Your task to perform on an android device: Open Google Chrome and click the shortcut for Amazon.com Image 0: 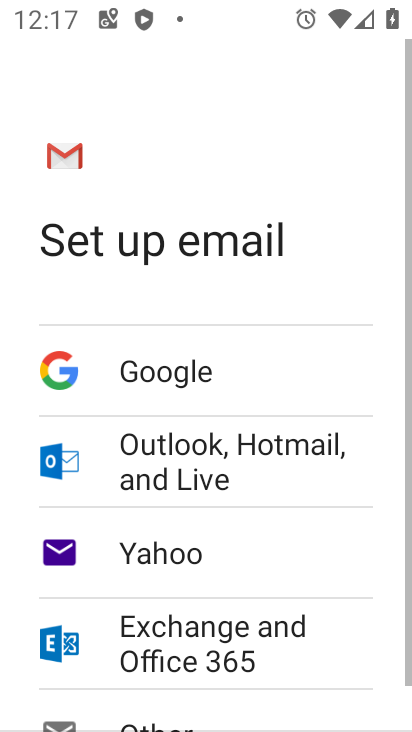
Step 0: press home button
Your task to perform on an android device: Open Google Chrome and click the shortcut for Amazon.com Image 1: 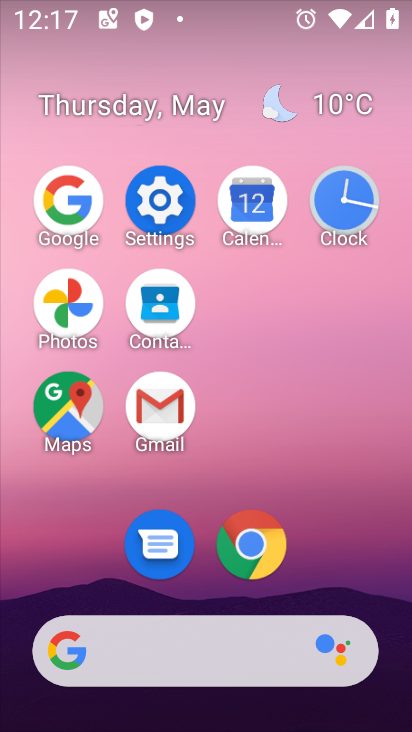
Step 1: click (263, 551)
Your task to perform on an android device: Open Google Chrome and click the shortcut for Amazon.com Image 2: 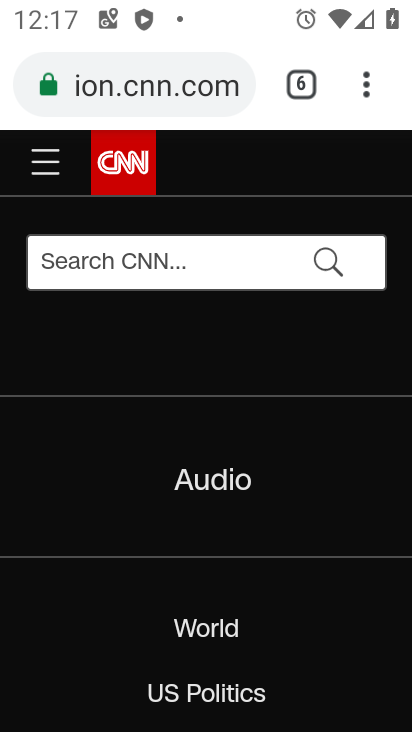
Step 2: click (300, 77)
Your task to perform on an android device: Open Google Chrome and click the shortcut for Amazon.com Image 3: 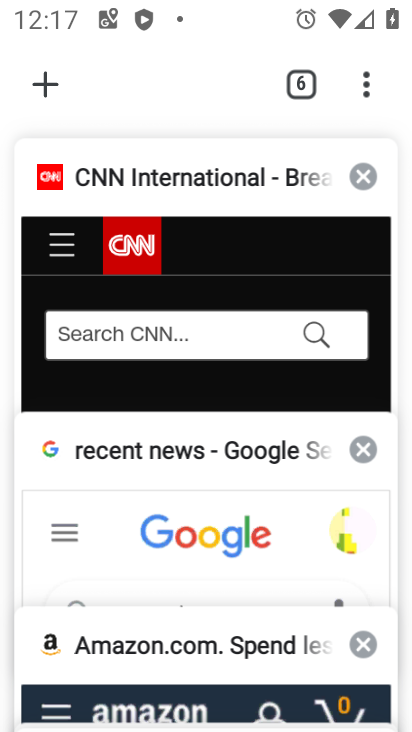
Step 3: click (168, 647)
Your task to perform on an android device: Open Google Chrome and click the shortcut for Amazon.com Image 4: 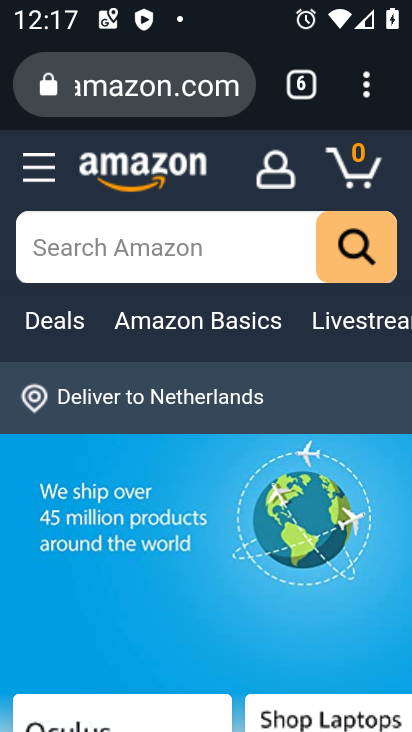
Step 4: click (385, 78)
Your task to perform on an android device: Open Google Chrome and click the shortcut for Amazon.com Image 5: 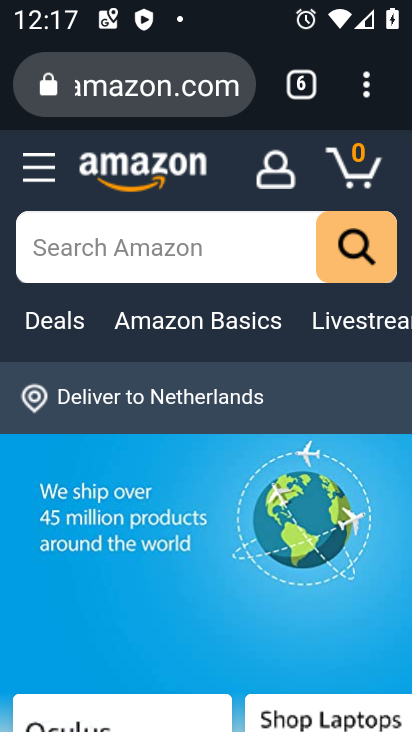
Step 5: click (374, 98)
Your task to perform on an android device: Open Google Chrome and click the shortcut for Amazon.com Image 6: 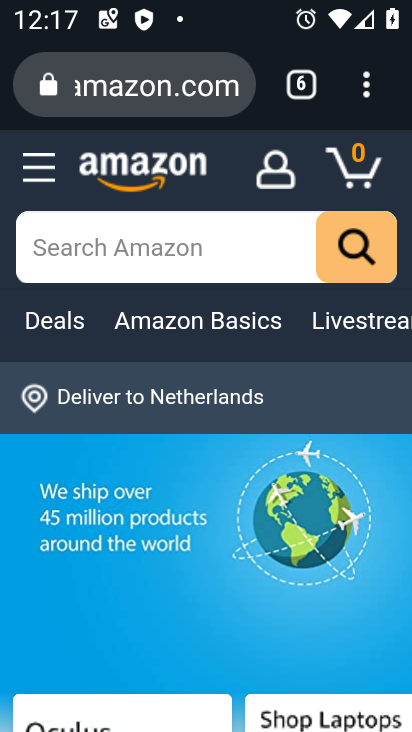
Step 6: click (372, 76)
Your task to perform on an android device: Open Google Chrome and click the shortcut for Amazon.com Image 7: 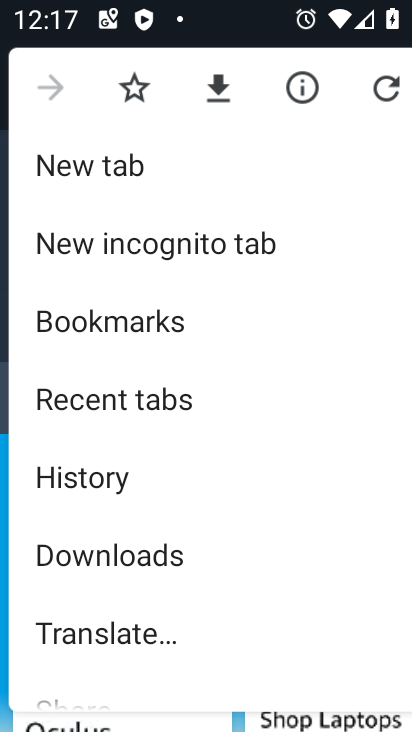
Step 7: drag from (245, 597) to (306, 156)
Your task to perform on an android device: Open Google Chrome and click the shortcut for Amazon.com Image 8: 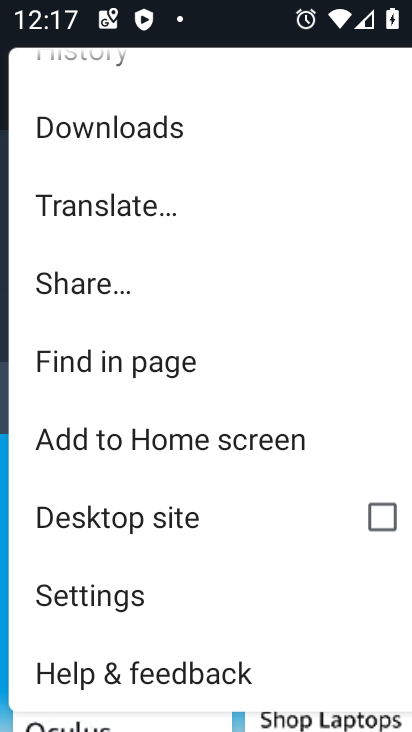
Step 8: click (296, 430)
Your task to perform on an android device: Open Google Chrome and click the shortcut for Amazon.com Image 9: 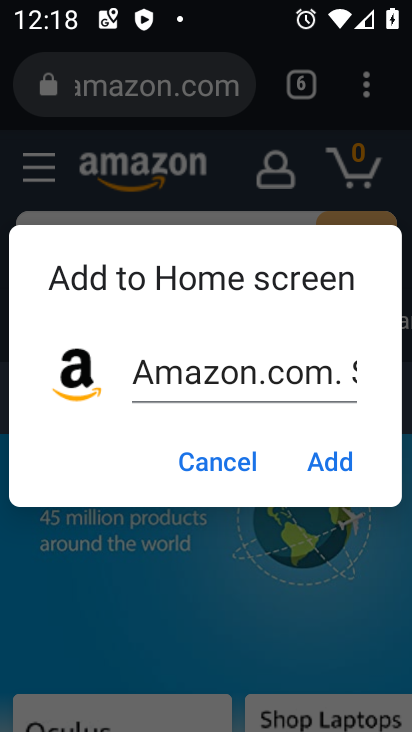
Step 9: click (319, 453)
Your task to perform on an android device: Open Google Chrome and click the shortcut for Amazon.com Image 10: 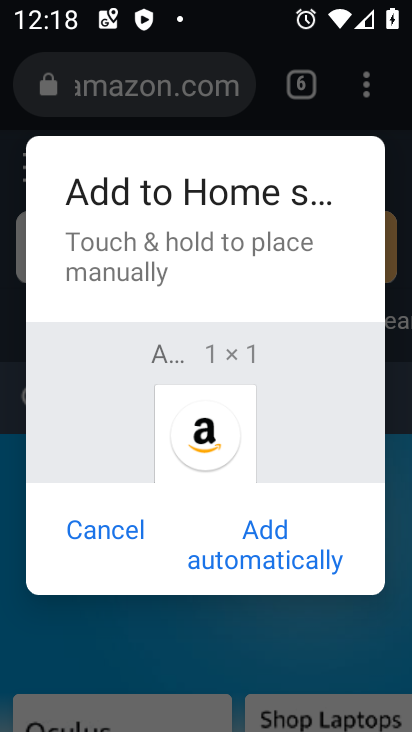
Step 10: click (292, 536)
Your task to perform on an android device: Open Google Chrome and click the shortcut for Amazon.com Image 11: 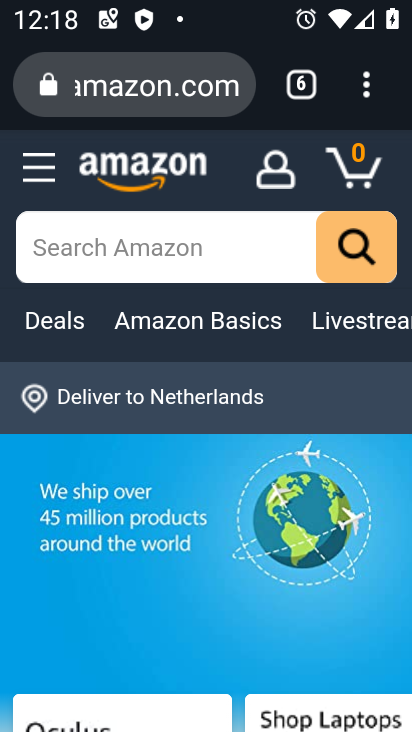
Step 11: task complete